Your task to perform on an android device: Is it going to rain today? Image 0: 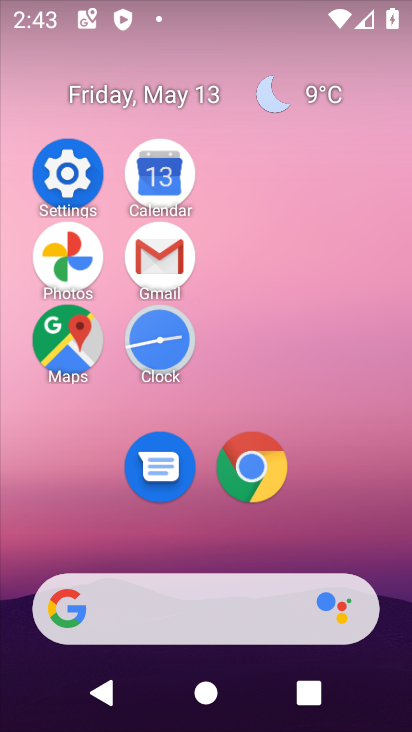
Step 0: drag from (195, 510) to (233, 150)
Your task to perform on an android device: Is it going to rain today? Image 1: 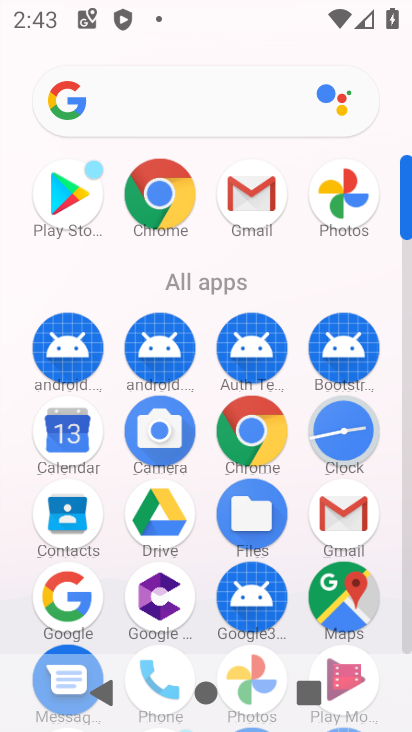
Step 1: click (76, 581)
Your task to perform on an android device: Is it going to rain today? Image 2: 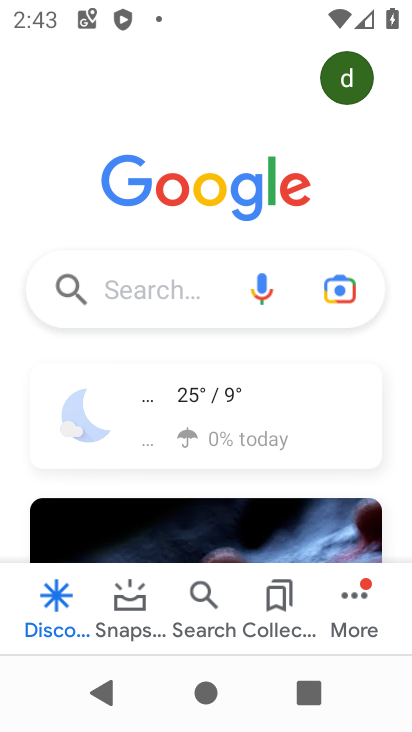
Step 2: click (190, 409)
Your task to perform on an android device: Is it going to rain today? Image 3: 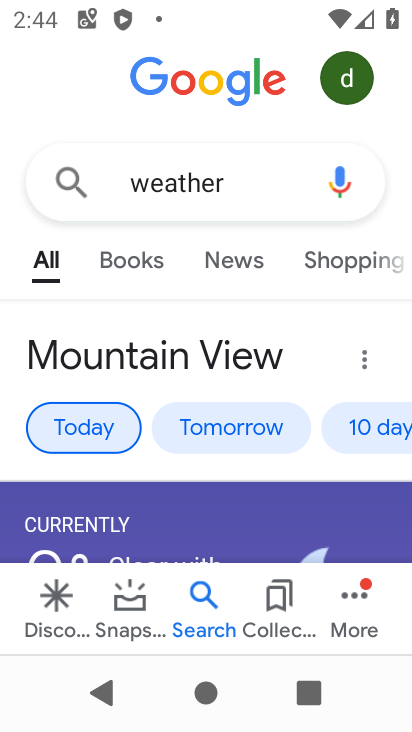
Step 3: task complete